Your task to perform on an android device: open sync settings in chrome Image 0: 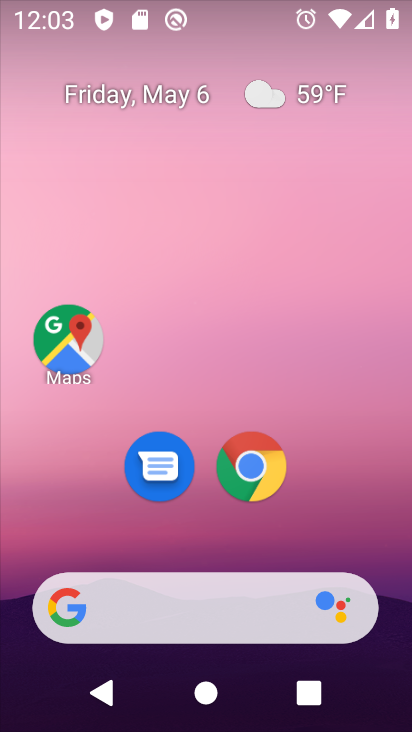
Step 0: drag from (214, 545) to (257, 192)
Your task to perform on an android device: open sync settings in chrome Image 1: 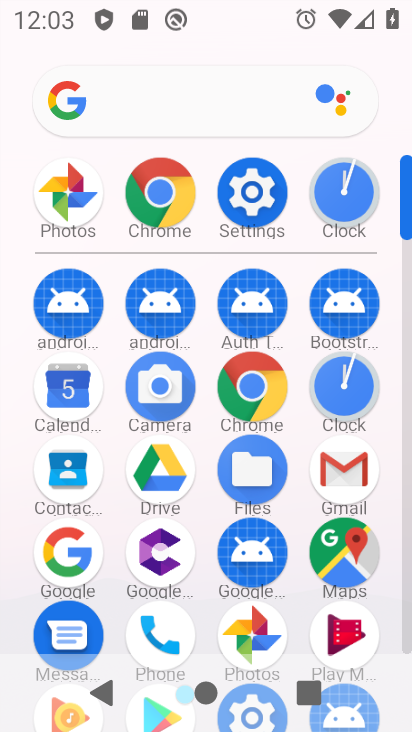
Step 1: click (163, 198)
Your task to perform on an android device: open sync settings in chrome Image 2: 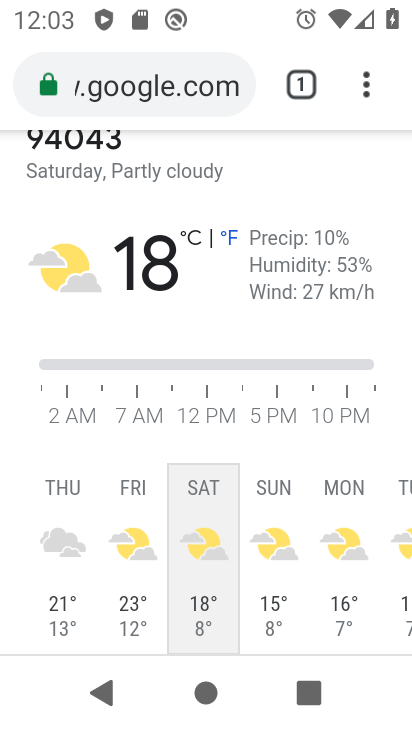
Step 2: click (366, 83)
Your task to perform on an android device: open sync settings in chrome Image 3: 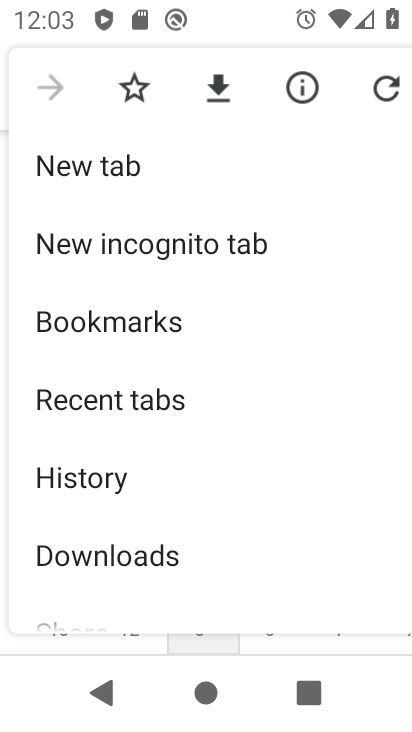
Step 3: drag from (102, 548) to (203, 146)
Your task to perform on an android device: open sync settings in chrome Image 4: 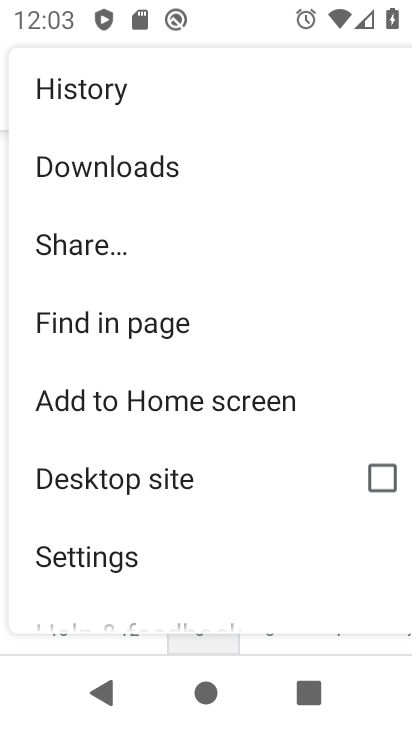
Step 4: click (94, 552)
Your task to perform on an android device: open sync settings in chrome Image 5: 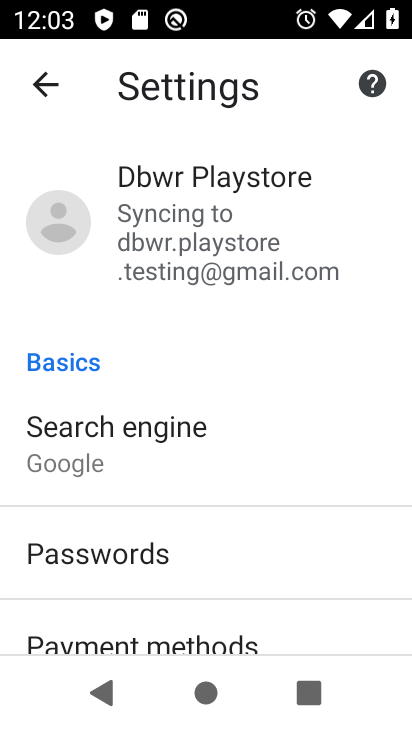
Step 5: click (204, 237)
Your task to perform on an android device: open sync settings in chrome Image 6: 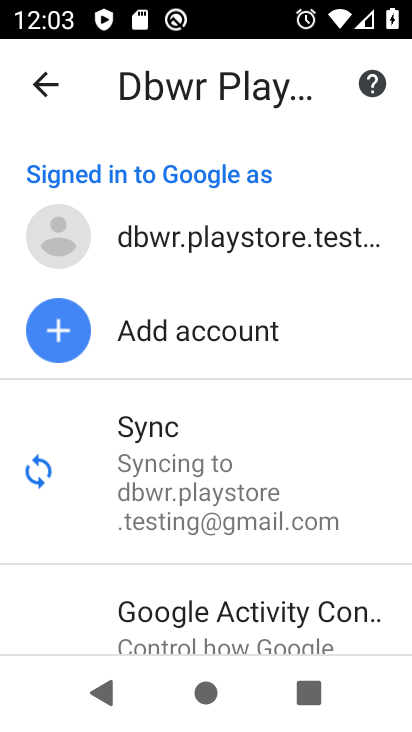
Step 6: drag from (148, 445) to (203, 297)
Your task to perform on an android device: open sync settings in chrome Image 7: 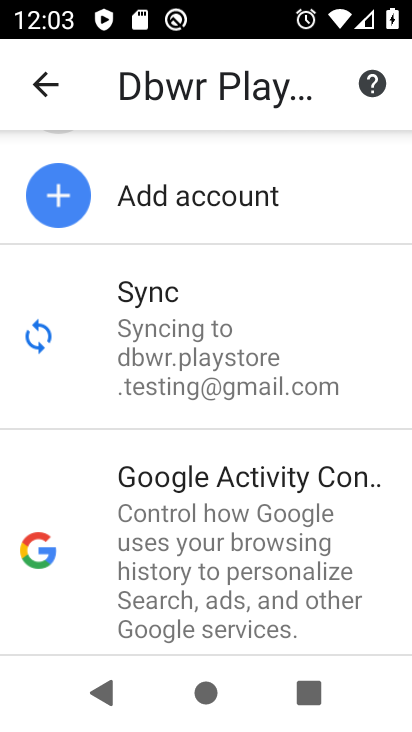
Step 7: click (184, 349)
Your task to perform on an android device: open sync settings in chrome Image 8: 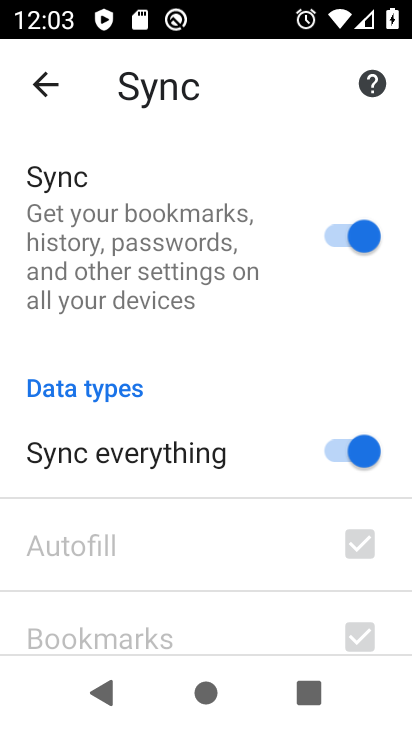
Step 8: task complete